Your task to perform on an android device: Go to sound settings Image 0: 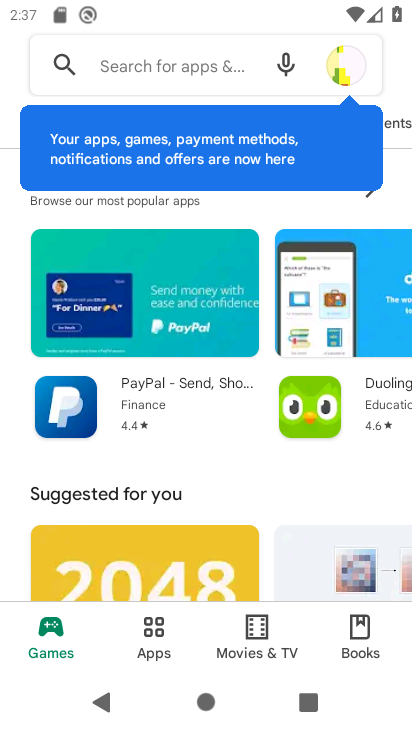
Step 0: drag from (189, 19) to (195, 655)
Your task to perform on an android device: Go to sound settings Image 1: 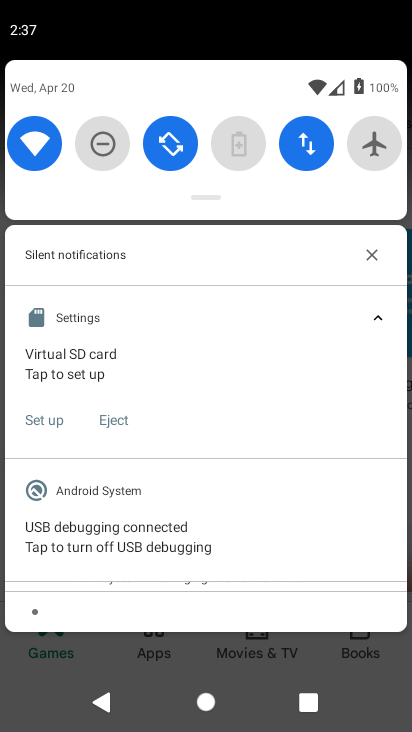
Step 1: drag from (166, 24) to (244, 552)
Your task to perform on an android device: Go to sound settings Image 2: 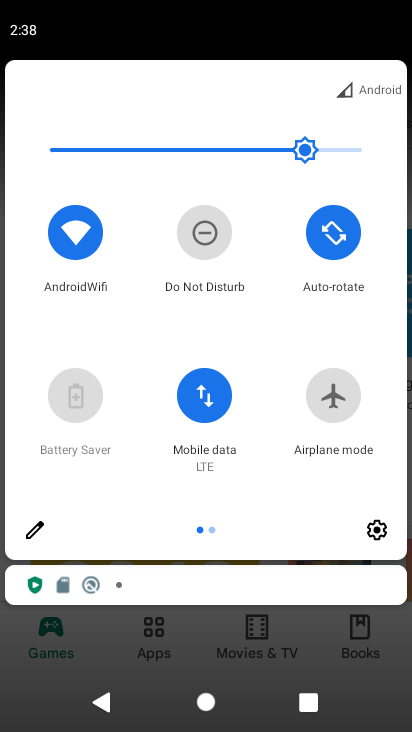
Step 2: click (380, 542)
Your task to perform on an android device: Go to sound settings Image 3: 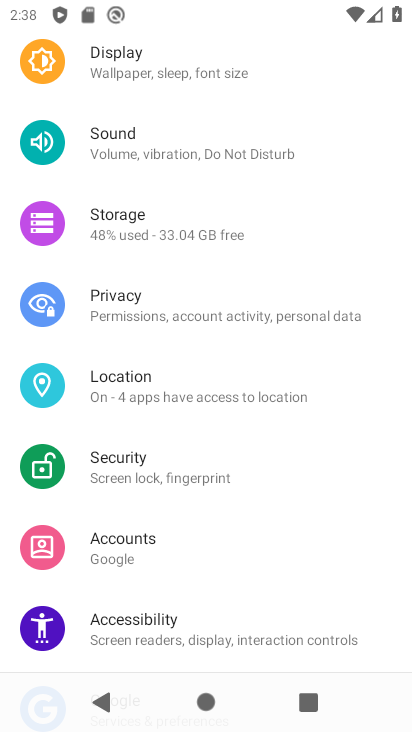
Step 3: click (184, 153)
Your task to perform on an android device: Go to sound settings Image 4: 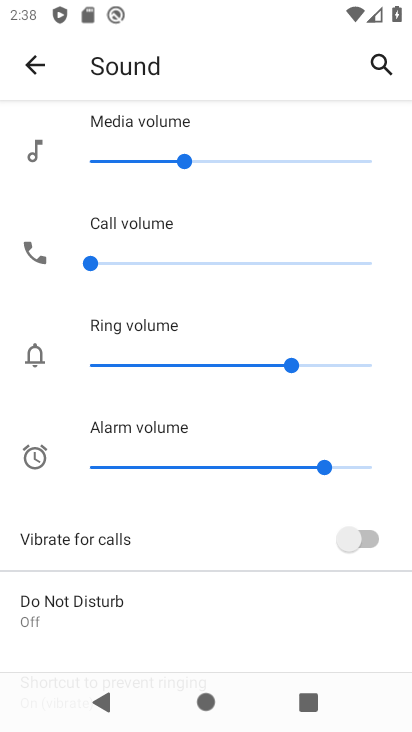
Step 4: task complete